Your task to perform on an android device: Go to Yahoo.com Image 0: 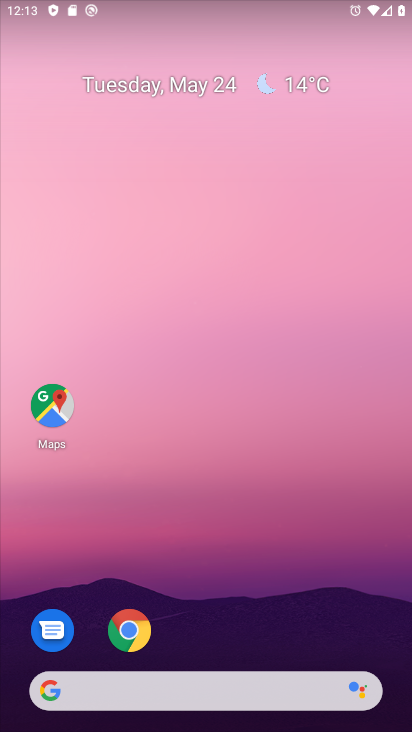
Step 0: drag from (339, 593) to (307, 149)
Your task to perform on an android device: Go to Yahoo.com Image 1: 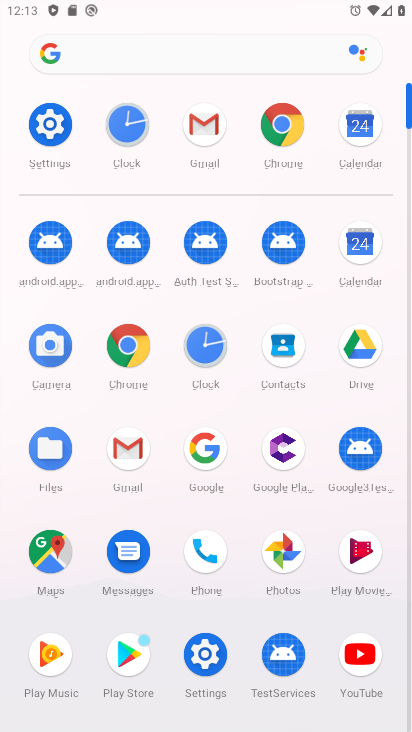
Step 1: click (128, 354)
Your task to perform on an android device: Go to Yahoo.com Image 2: 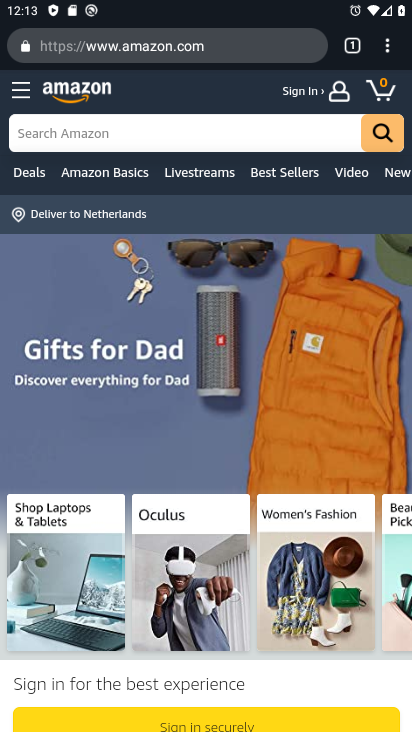
Step 2: click (180, 52)
Your task to perform on an android device: Go to Yahoo.com Image 3: 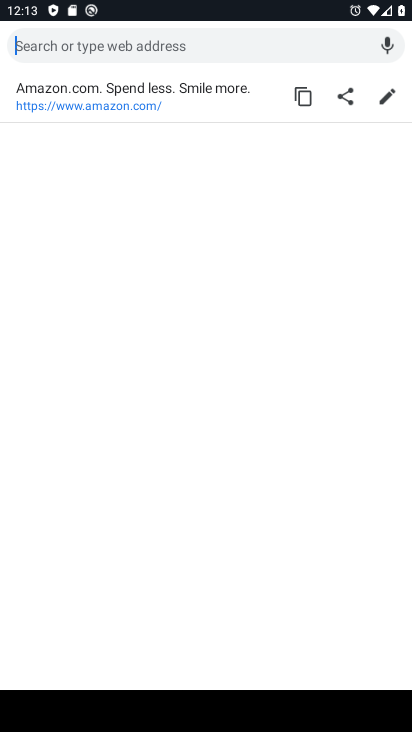
Step 3: type "yahoo.com"
Your task to perform on an android device: Go to Yahoo.com Image 4: 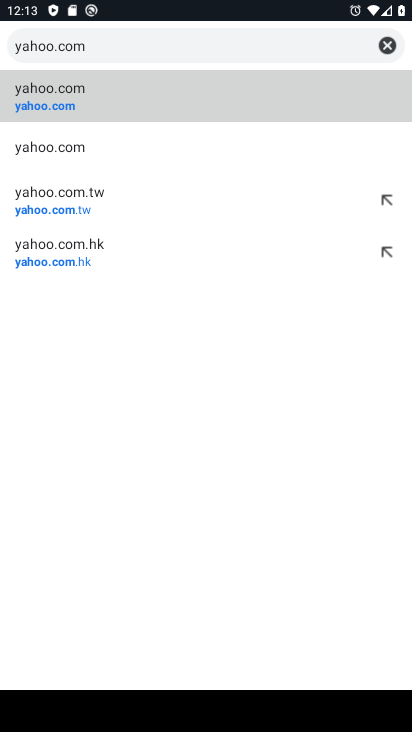
Step 4: click (63, 102)
Your task to perform on an android device: Go to Yahoo.com Image 5: 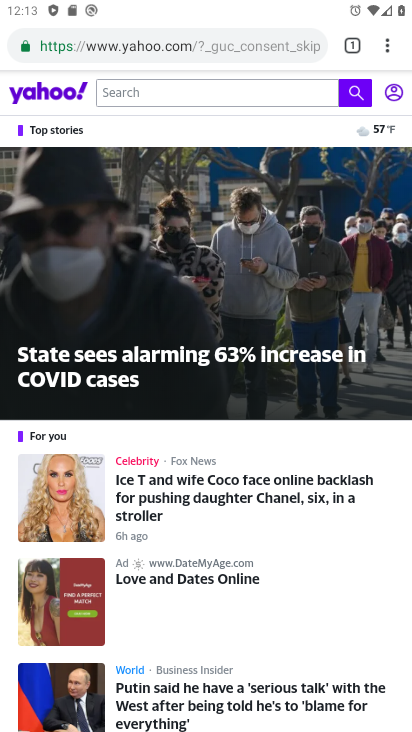
Step 5: task complete